Your task to perform on an android device: Go to Wikipedia Image 0: 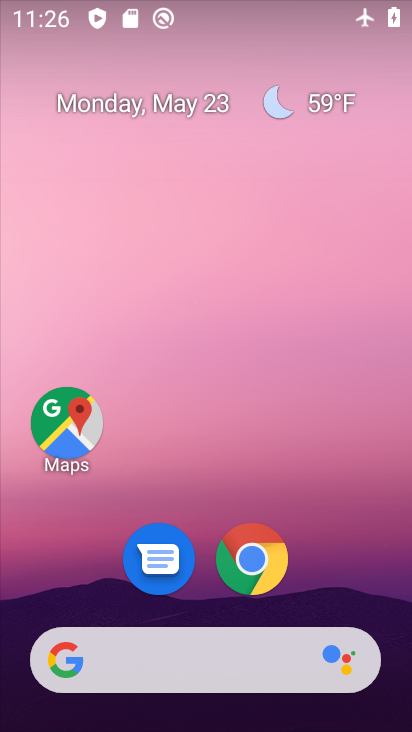
Step 0: drag from (400, 637) to (265, 36)
Your task to perform on an android device: Go to Wikipedia Image 1: 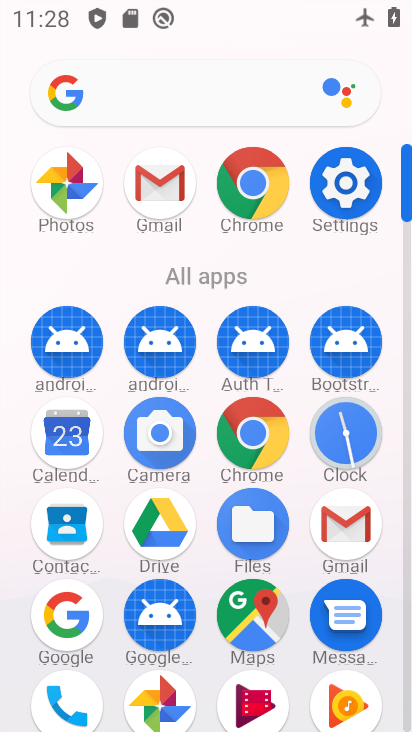
Step 1: click (272, 193)
Your task to perform on an android device: Go to Wikipedia Image 2: 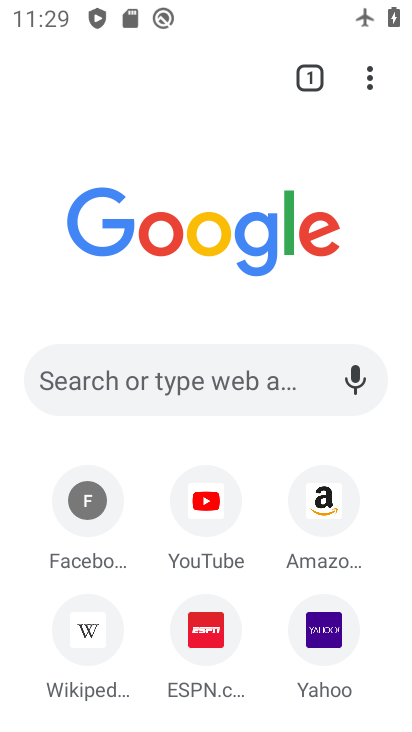
Step 2: click (118, 637)
Your task to perform on an android device: Go to Wikipedia Image 3: 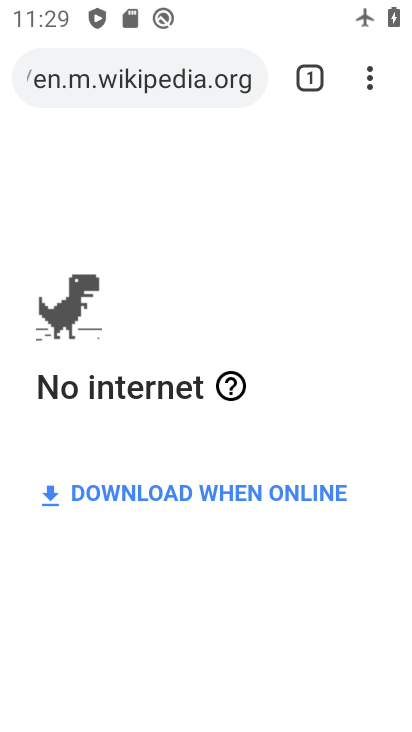
Step 3: task complete